Your task to perform on an android device: choose inbox layout in the gmail app Image 0: 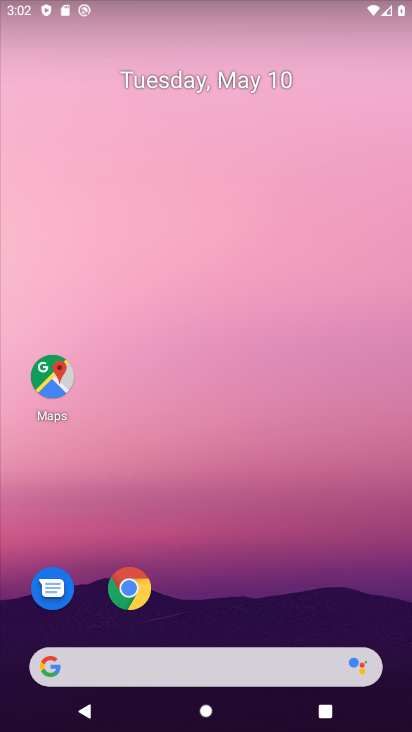
Step 0: drag from (196, 632) to (295, 92)
Your task to perform on an android device: choose inbox layout in the gmail app Image 1: 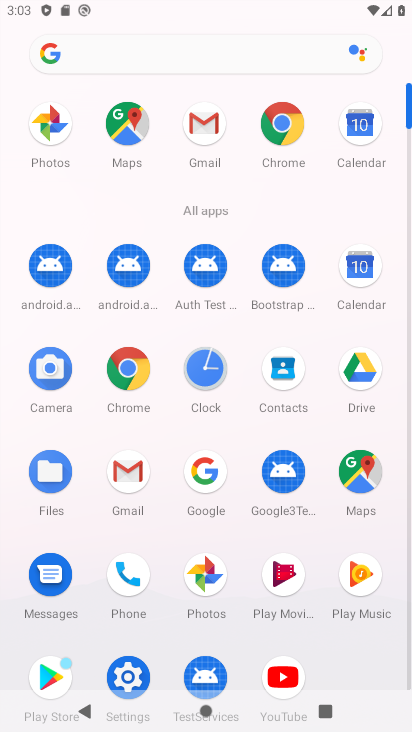
Step 1: click (128, 481)
Your task to perform on an android device: choose inbox layout in the gmail app Image 2: 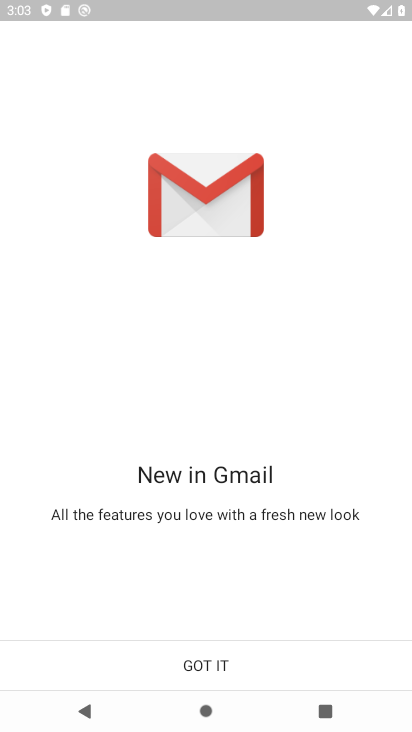
Step 2: click (289, 644)
Your task to perform on an android device: choose inbox layout in the gmail app Image 3: 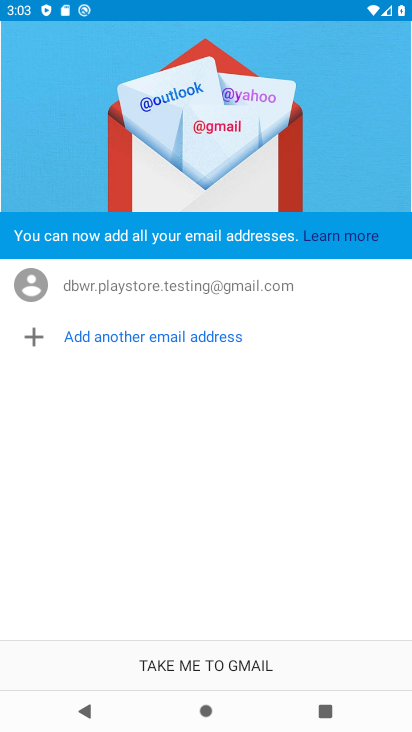
Step 3: click (260, 665)
Your task to perform on an android device: choose inbox layout in the gmail app Image 4: 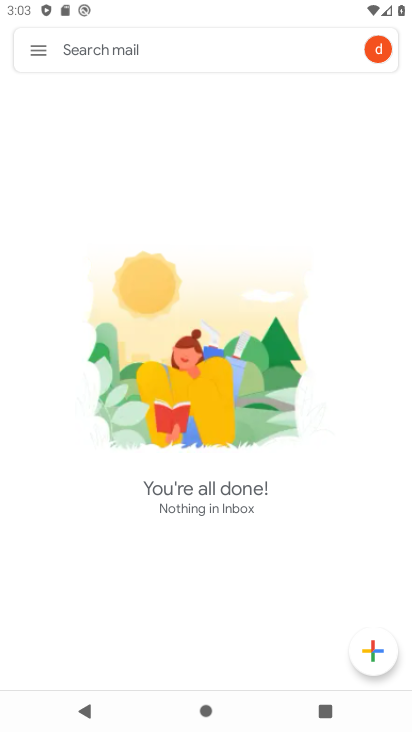
Step 4: click (46, 50)
Your task to perform on an android device: choose inbox layout in the gmail app Image 5: 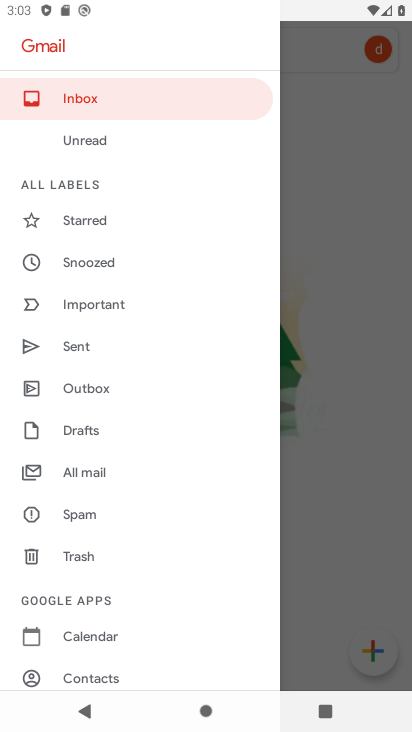
Step 5: drag from (110, 623) to (214, 275)
Your task to perform on an android device: choose inbox layout in the gmail app Image 6: 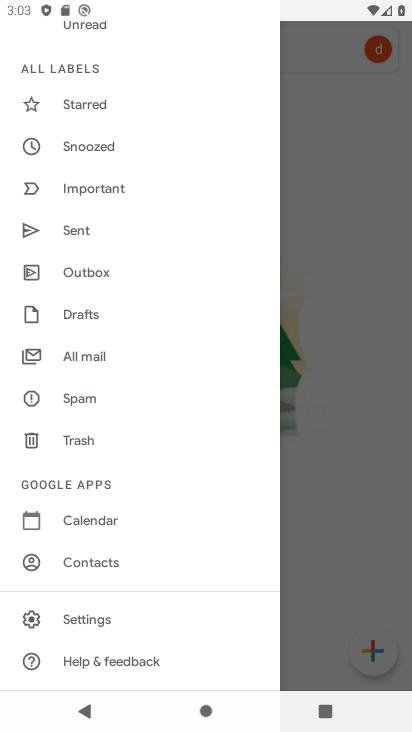
Step 6: click (124, 623)
Your task to perform on an android device: choose inbox layout in the gmail app Image 7: 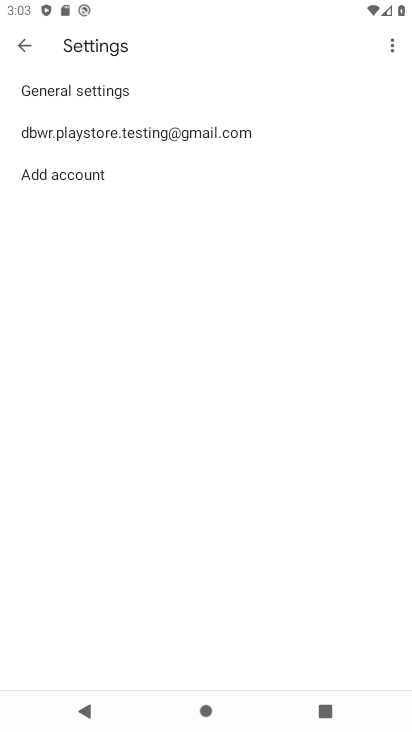
Step 7: click (209, 130)
Your task to perform on an android device: choose inbox layout in the gmail app Image 8: 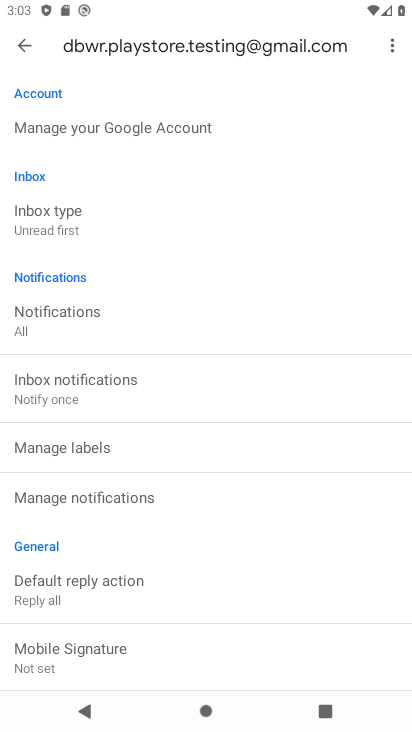
Step 8: click (131, 227)
Your task to perform on an android device: choose inbox layout in the gmail app Image 9: 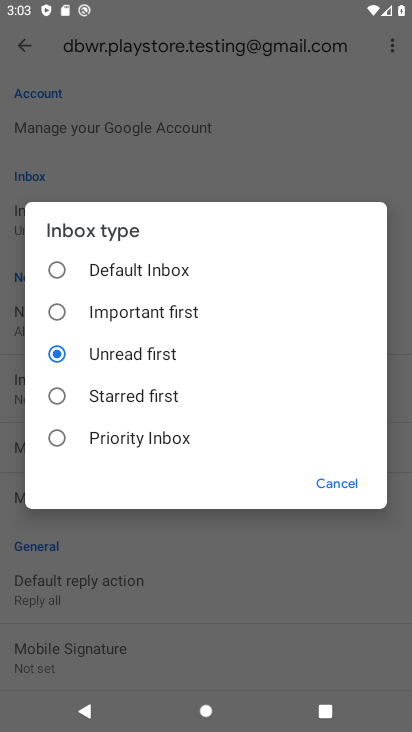
Step 9: click (132, 396)
Your task to perform on an android device: choose inbox layout in the gmail app Image 10: 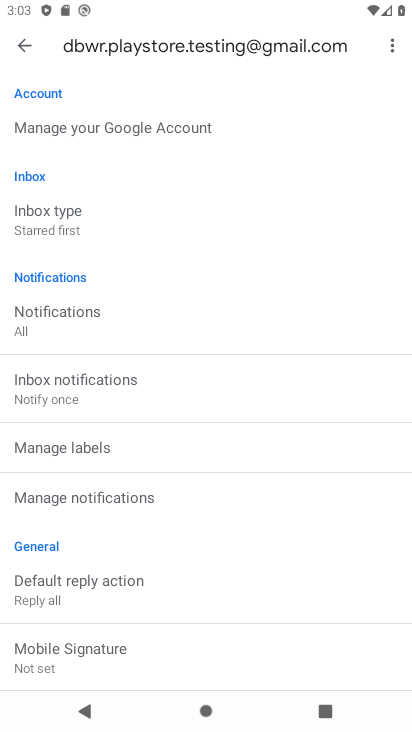
Step 10: task complete